Your task to perform on an android device: Open settings Image 0: 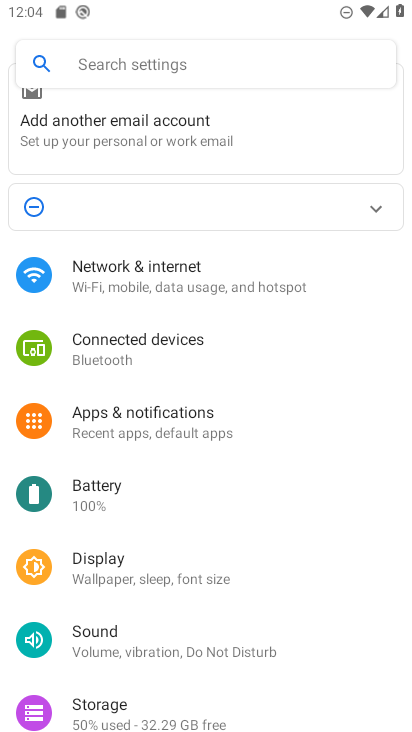
Step 0: task complete